Your task to perform on an android device: turn off sleep mode Image 0: 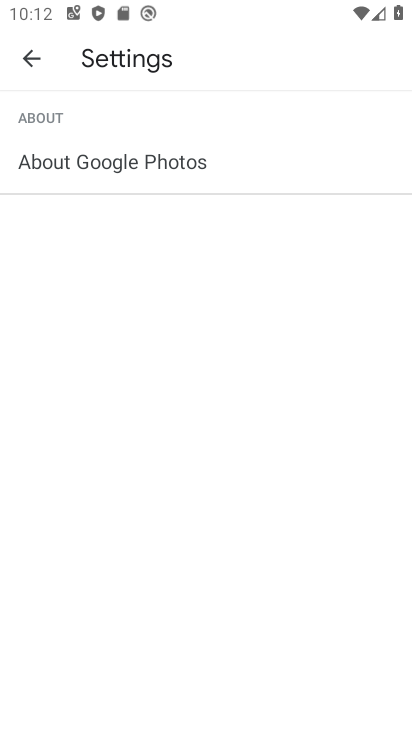
Step 0: click (31, 50)
Your task to perform on an android device: turn off sleep mode Image 1: 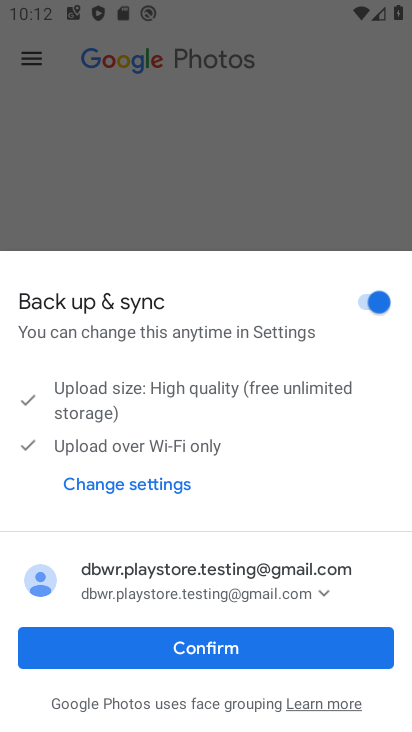
Step 1: press back button
Your task to perform on an android device: turn off sleep mode Image 2: 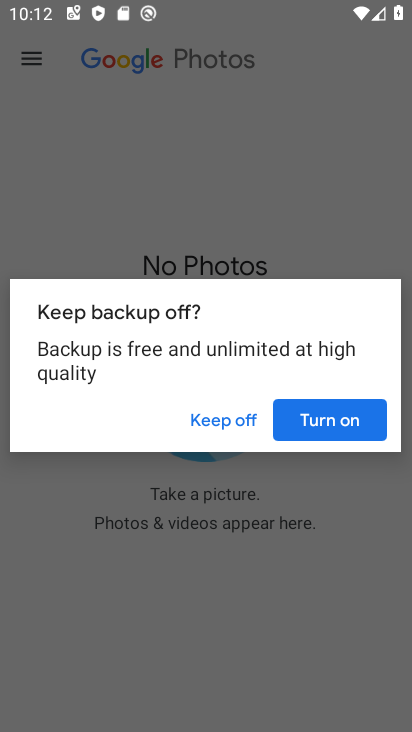
Step 2: press home button
Your task to perform on an android device: turn off sleep mode Image 3: 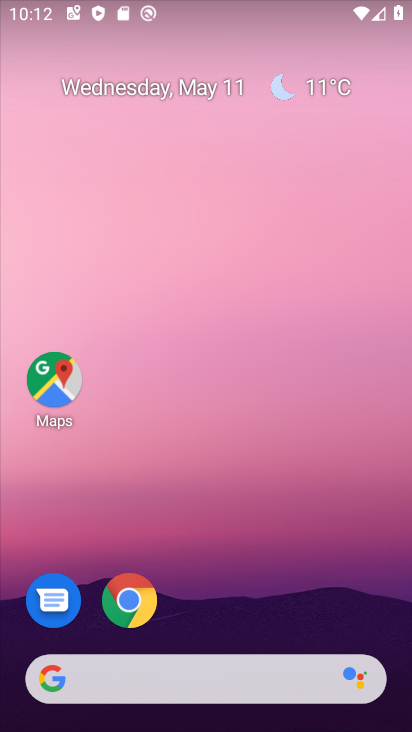
Step 3: drag from (207, 522) to (239, 259)
Your task to perform on an android device: turn off sleep mode Image 4: 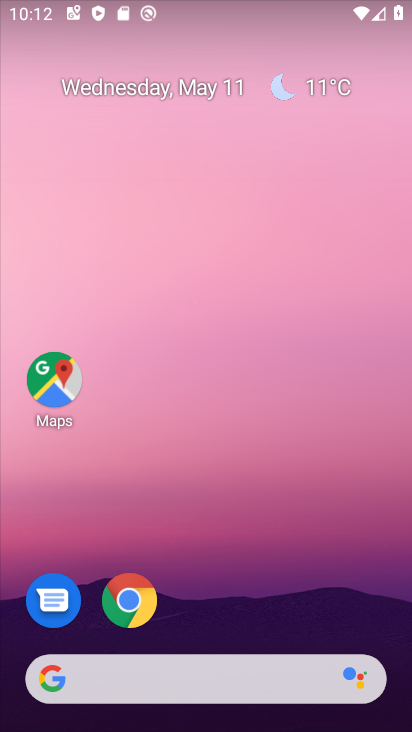
Step 4: drag from (228, 533) to (230, 173)
Your task to perform on an android device: turn off sleep mode Image 5: 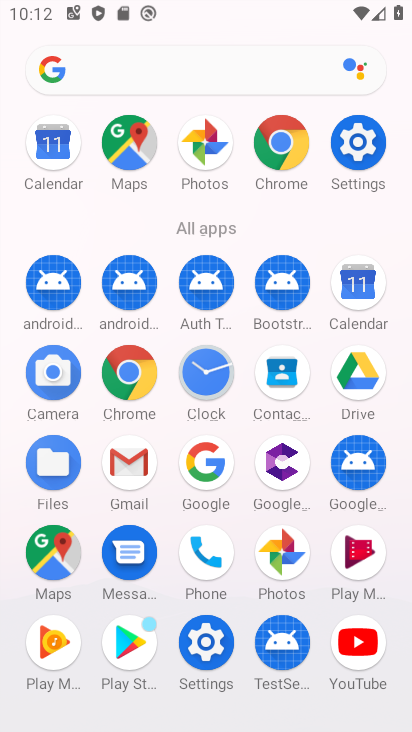
Step 5: click (341, 154)
Your task to perform on an android device: turn off sleep mode Image 6: 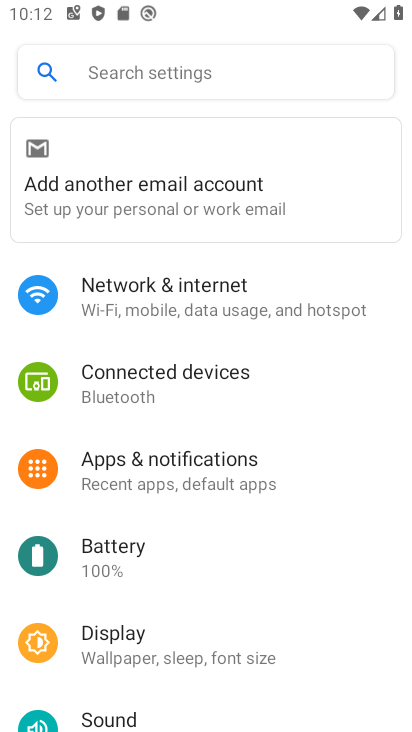
Step 6: drag from (303, 578) to (262, 166)
Your task to perform on an android device: turn off sleep mode Image 7: 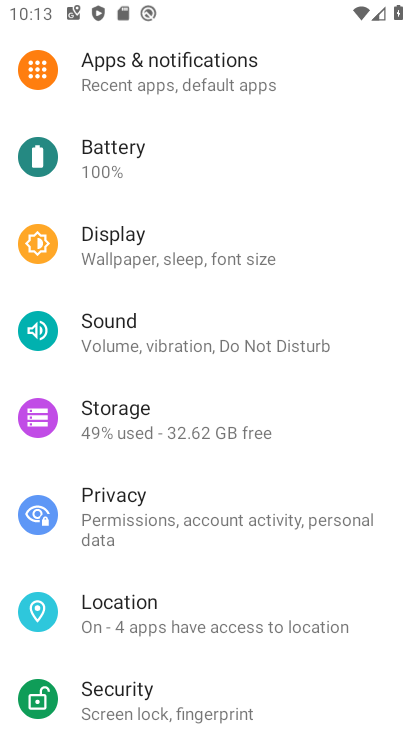
Step 7: drag from (230, 166) to (234, 584)
Your task to perform on an android device: turn off sleep mode Image 8: 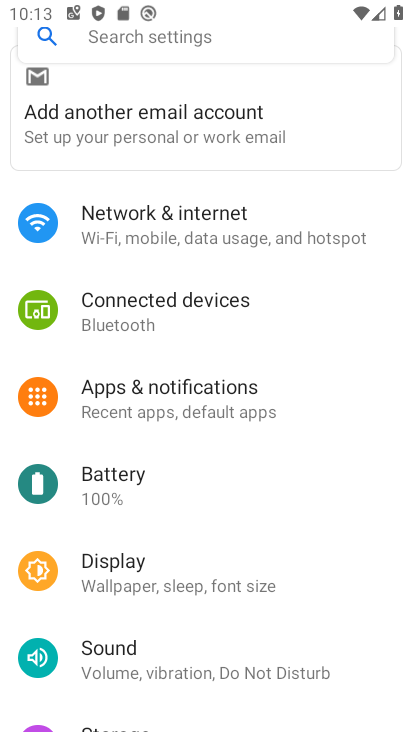
Step 8: click (132, 570)
Your task to perform on an android device: turn off sleep mode Image 9: 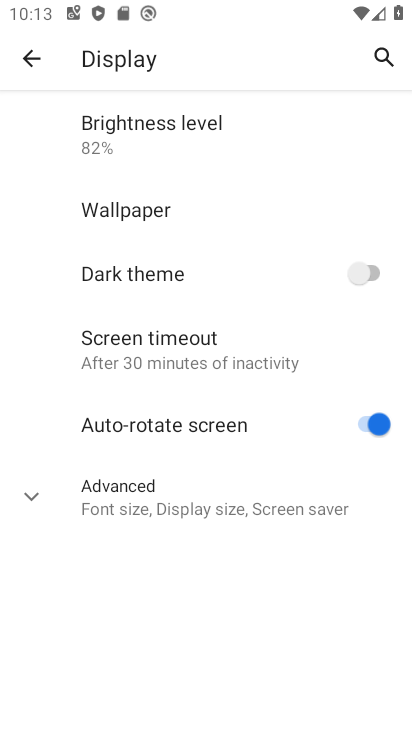
Step 9: click (104, 479)
Your task to perform on an android device: turn off sleep mode Image 10: 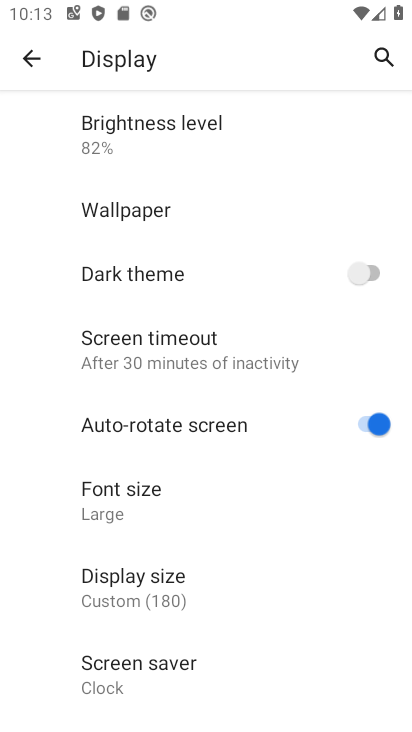
Step 10: task complete